Your task to perform on an android device: manage bookmarks in the chrome app Image 0: 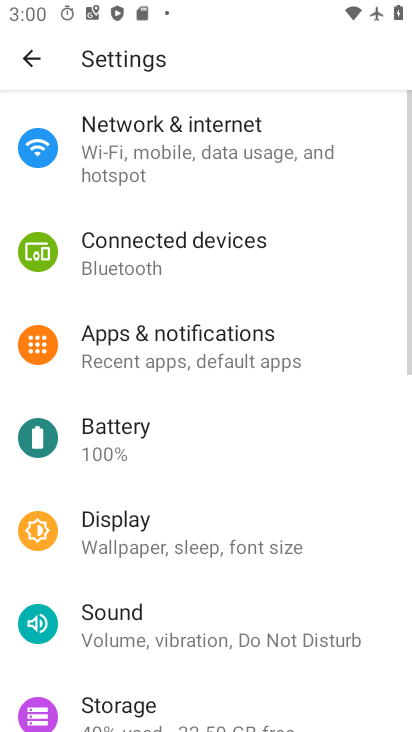
Step 0: press back button
Your task to perform on an android device: manage bookmarks in the chrome app Image 1: 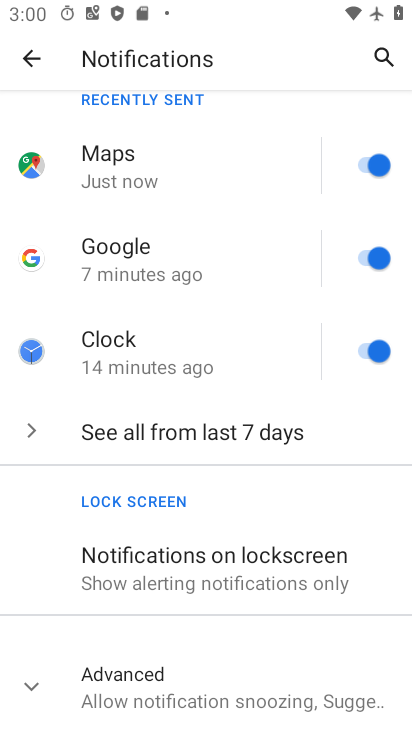
Step 1: press back button
Your task to perform on an android device: manage bookmarks in the chrome app Image 2: 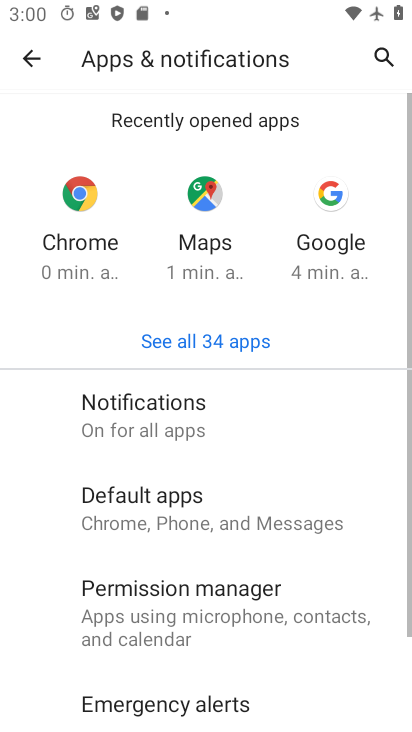
Step 2: press home button
Your task to perform on an android device: manage bookmarks in the chrome app Image 3: 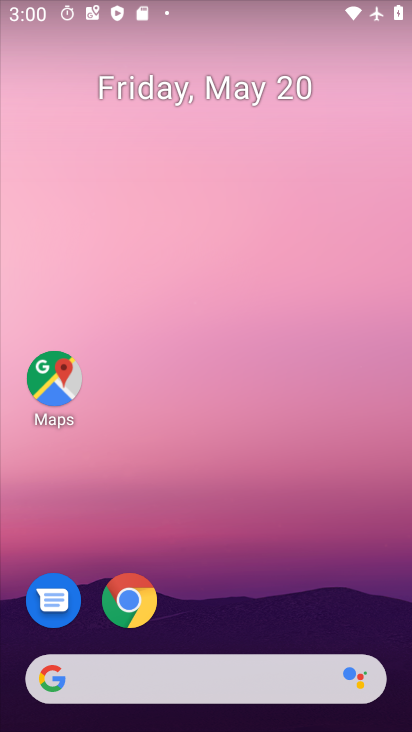
Step 3: drag from (229, 563) to (210, 58)
Your task to perform on an android device: manage bookmarks in the chrome app Image 4: 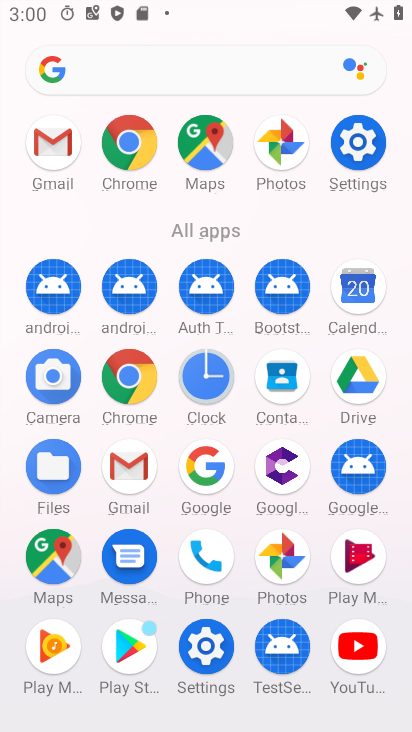
Step 4: click (128, 373)
Your task to perform on an android device: manage bookmarks in the chrome app Image 5: 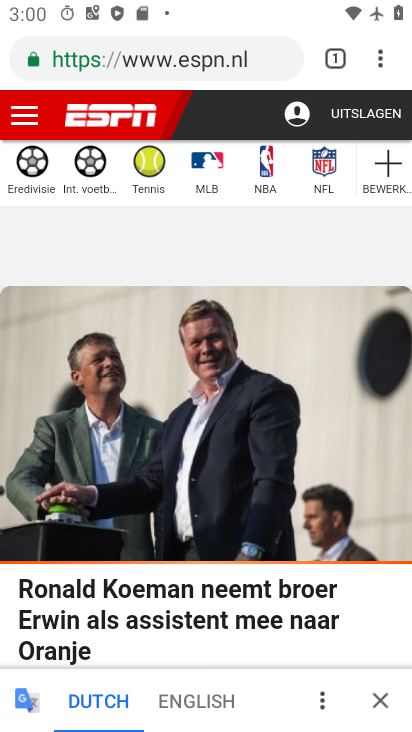
Step 5: task complete